Your task to perform on an android device: choose inbox layout in the gmail app Image 0: 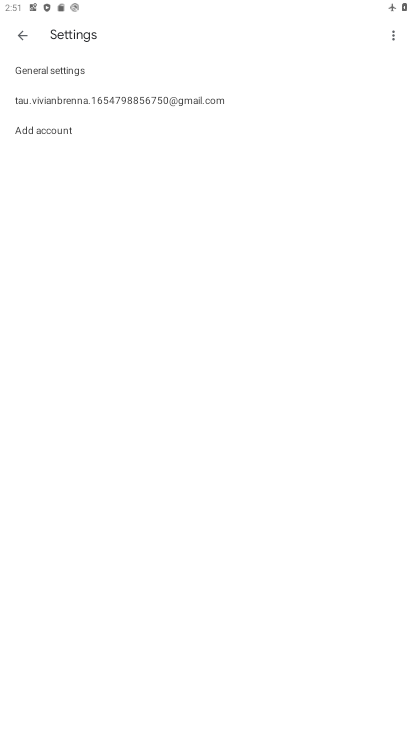
Step 0: press home button
Your task to perform on an android device: choose inbox layout in the gmail app Image 1: 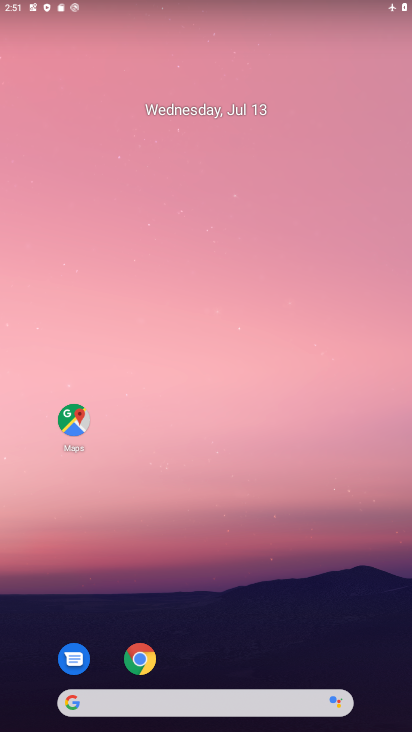
Step 1: drag from (382, 659) to (301, 165)
Your task to perform on an android device: choose inbox layout in the gmail app Image 2: 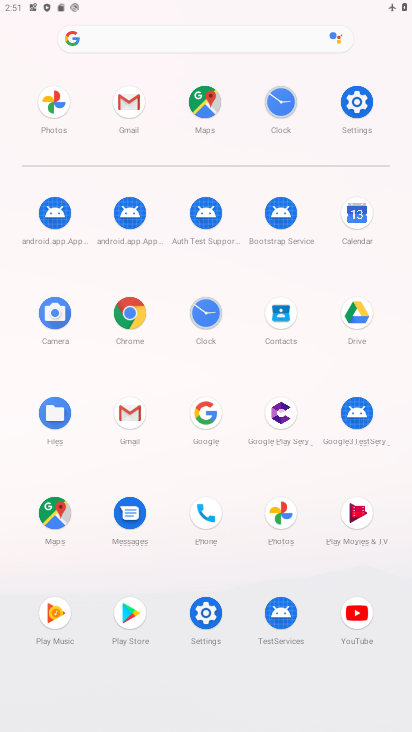
Step 2: click (129, 415)
Your task to perform on an android device: choose inbox layout in the gmail app Image 3: 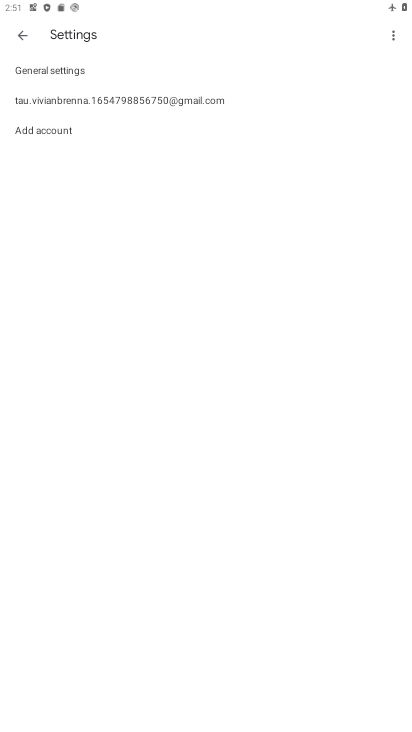
Step 3: click (79, 96)
Your task to perform on an android device: choose inbox layout in the gmail app Image 4: 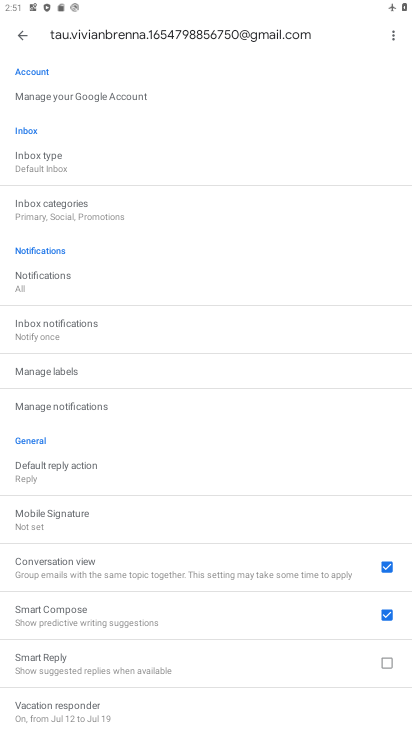
Step 4: click (45, 161)
Your task to perform on an android device: choose inbox layout in the gmail app Image 5: 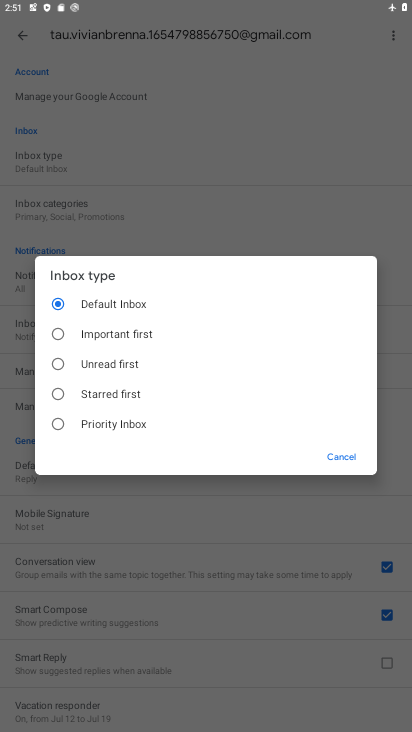
Step 5: click (55, 395)
Your task to perform on an android device: choose inbox layout in the gmail app Image 6: 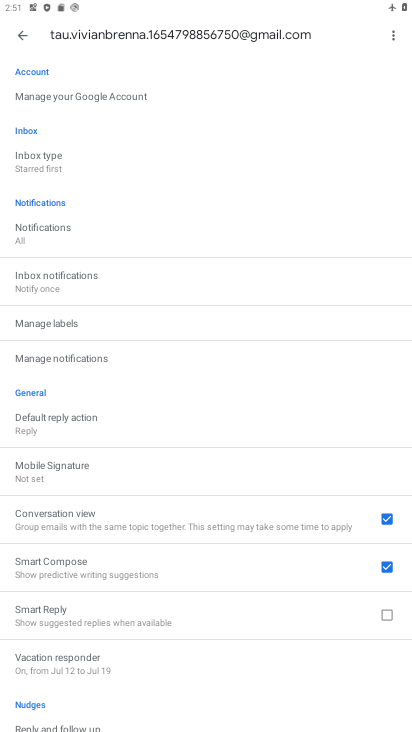
Step 6: task complete